Your task to perform on an android device: turn on improve location accuracy Image 0: 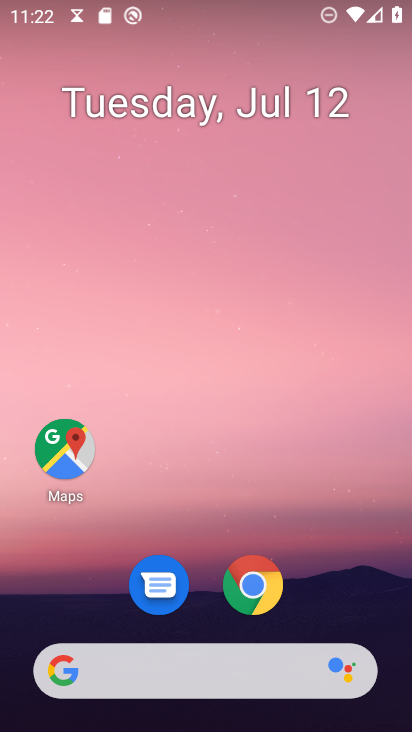
Step 0: drag from (162, 670) to (377, 88)
Your task to perform on an android device: turn on improve location accuracy Image 1: 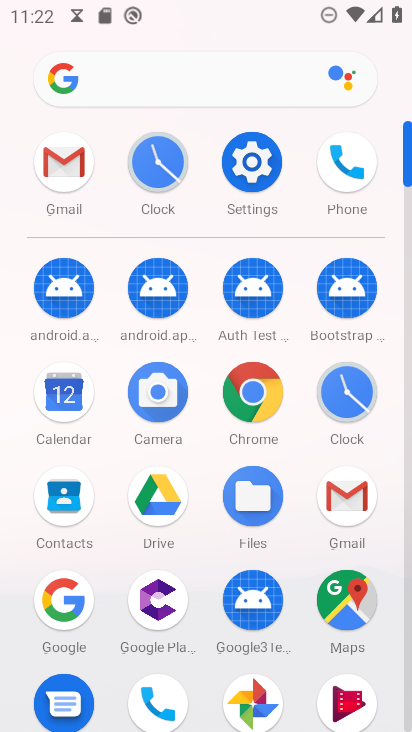
Step 1: click (257, 164)
Your task to perform on an android device: turn on improve location accuracy Image 2: 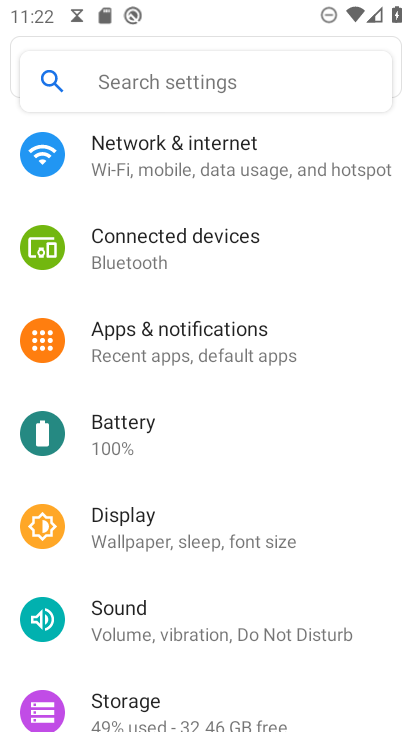
Step 2: drag from (195, 581) to (287, 97)
Your task to perform on an android device: turn on improve location accuracy Image 3: 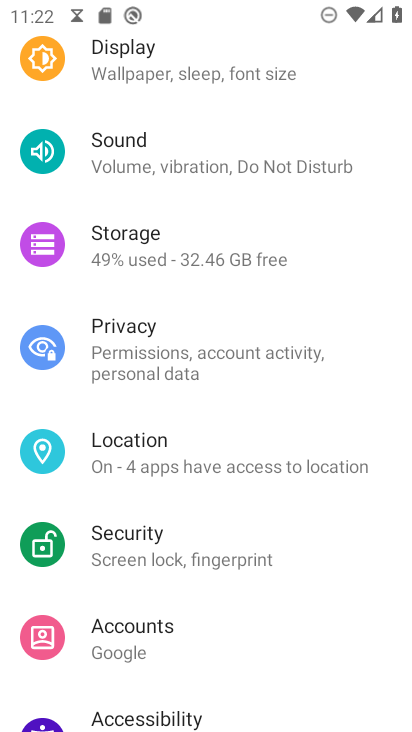
Step 3: click (176, 451)
Your task to perform on an android device: turn on improve location accuracy Image 4: 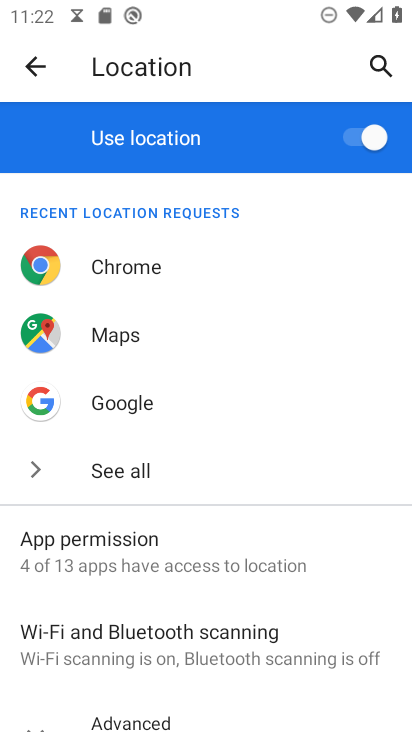
Step 4: drag from (229, 614) to (311, 177)
Your task to perform on an android device: turn on improve location accuracy Image 5: 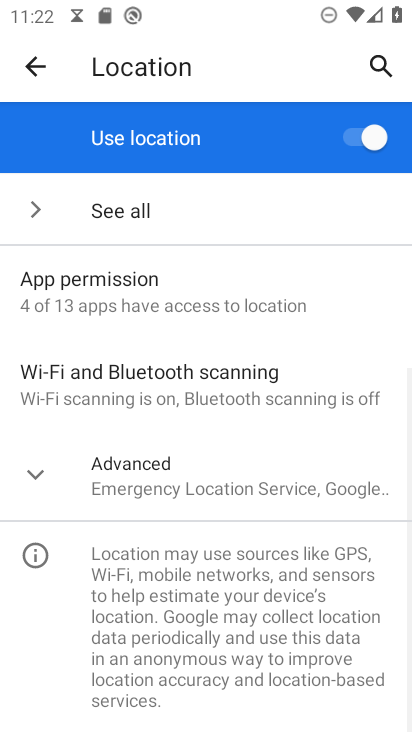
Step 5: click (162, 482)
Your task to perform on an android device: turn on improve location accuracy Image 6: 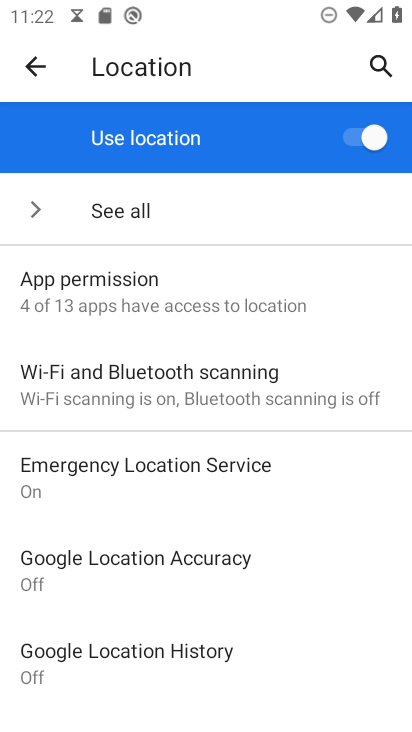
Step 6: click (113, 556)
Your task to perform on an android device: turn on improve location accuracy Image 7: 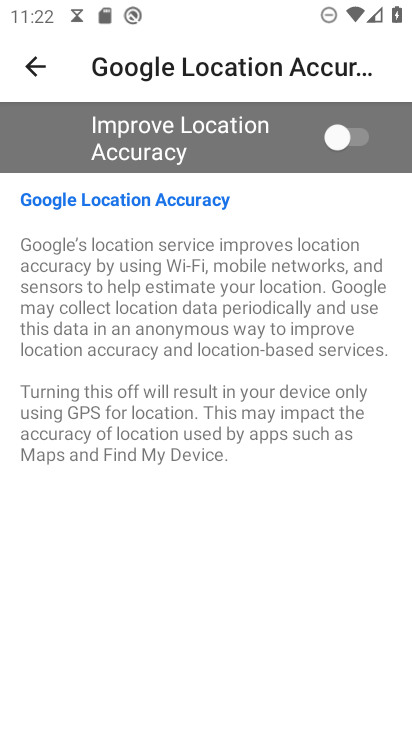
Step 7: click (351, 135)
Your task to perform on an android device: turn on improve location accuracy Image 8: 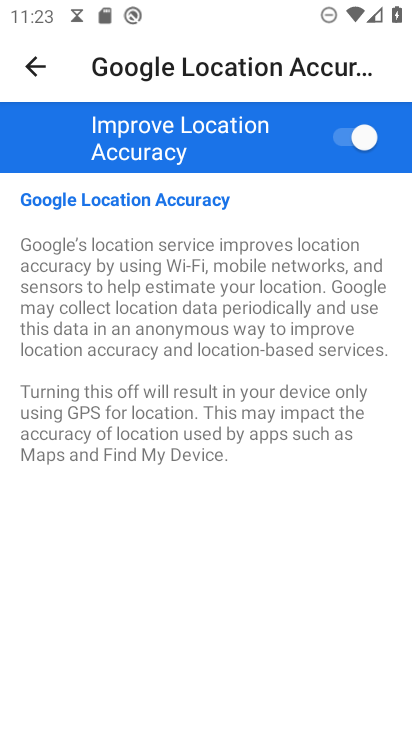
Step 8: task complete